Your task to perform on an android device: What's on my calendar tomorrow? Image 0: 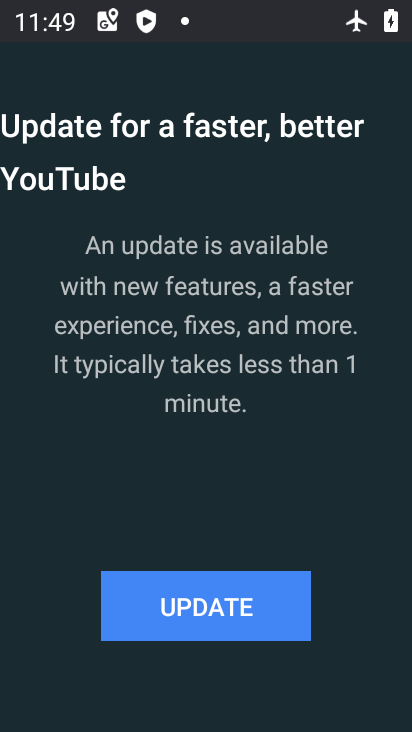
Step 0: drag from (395, 597) to (267, 233)
Your task to perform on an android device: What's on my calendar tomorrow? Image 1: 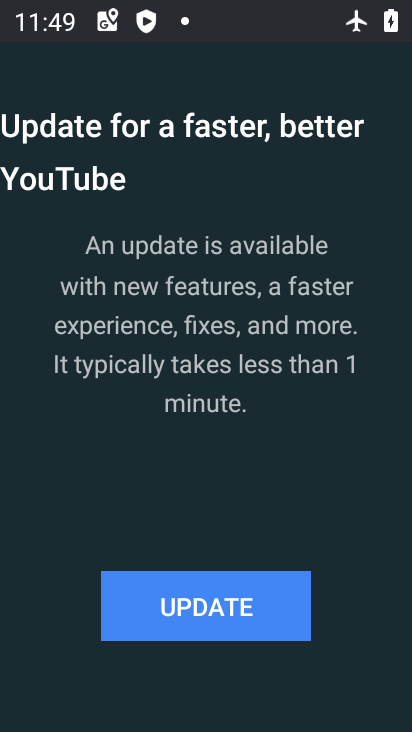
Step 1: press back button
Your task to perform on an android device: What's on my calendar tomorrow? Image 2: 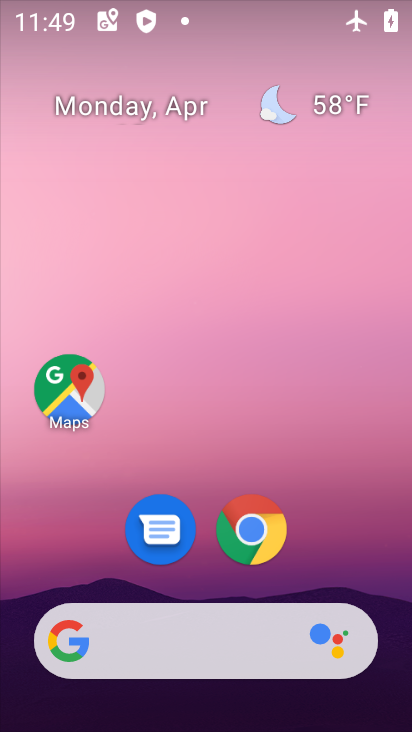
Step 2: drag from (395, 593) to (216, 155)
Your task to perform on an android device: What's on my calendar tomorrow? Image 3: 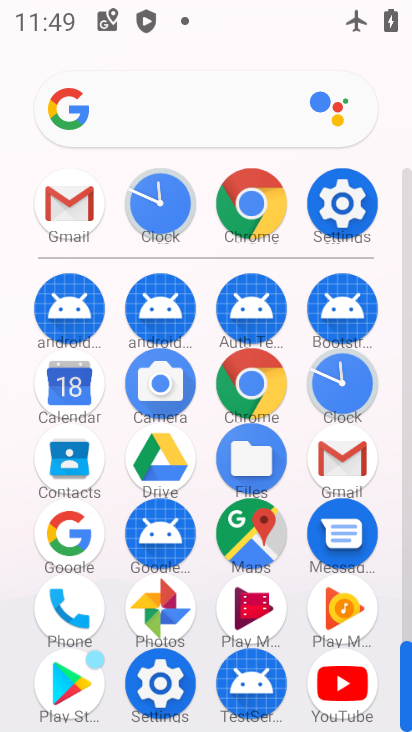
Step 3: click (84, 378)
Your task to perform on an android device: What's on my calendar tomorrow? Image 4: 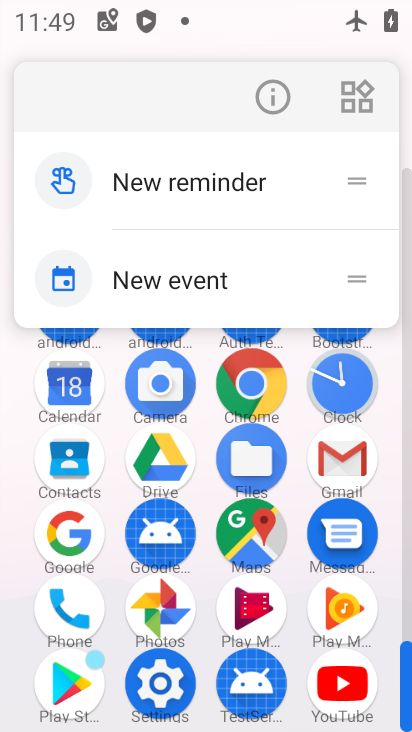
Step 4: click (66, 382)
Your task to perform on an android device: What's on my calendar tomorrow? Image 5: 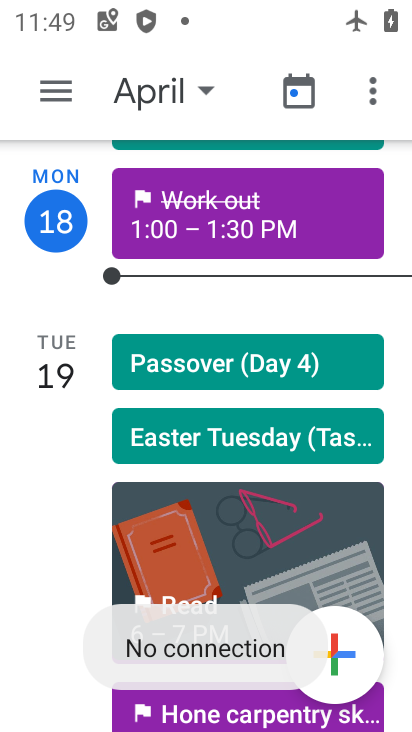
Step 5: click (66, 382)
Your task to perform on an android device: What's on my calendar tomorrow? Image 6: 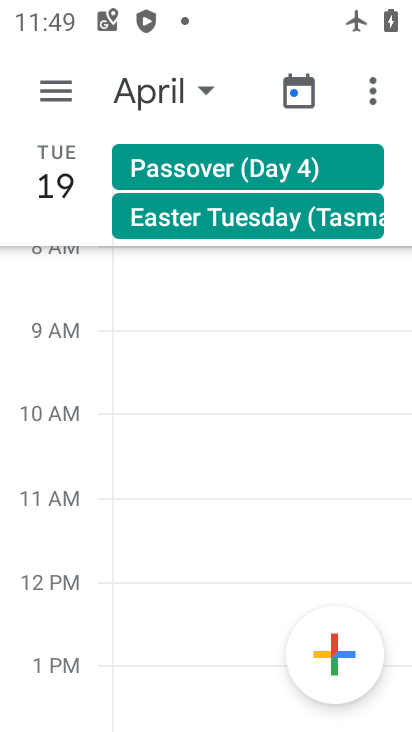
Step 6: task complete